Your task to perform on an android device: Check the settings for the Pandora app Image 0: 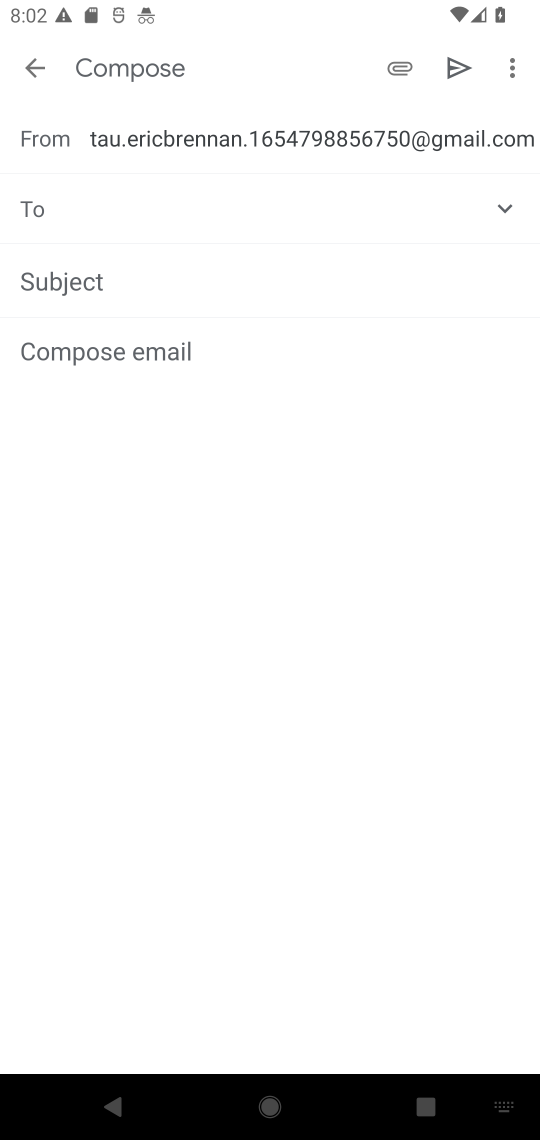
Step 0: press home button
Your task to perform on an android device: Check the settings for the Pandora app Image 1: 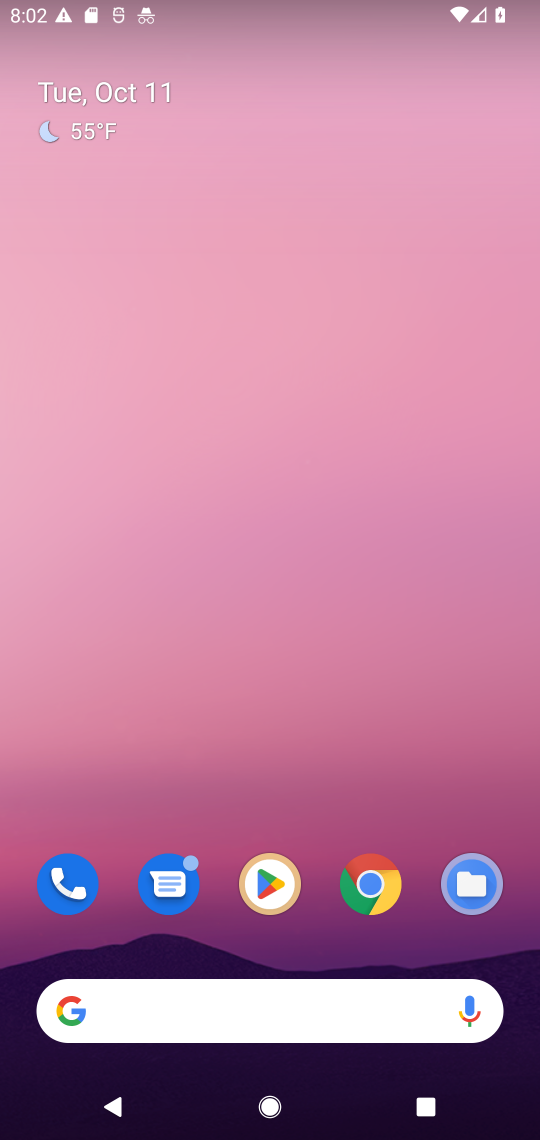
Step 1: drag from (316, 863) to (276, 76)
Your task to perform on an android device: Check the settings for the Pandora app Image 2: 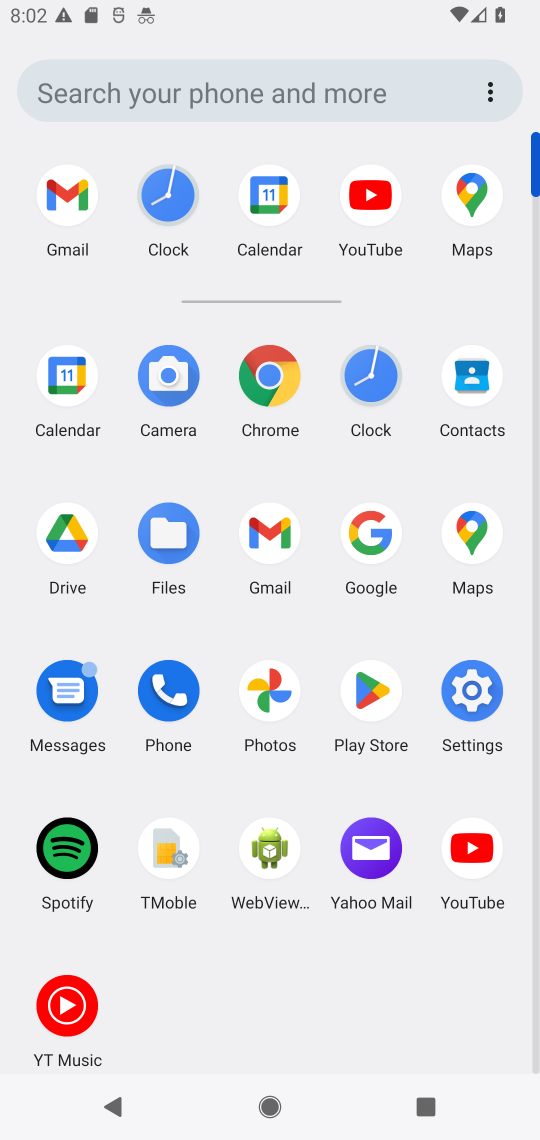
Step 2: drag from (334, 348) to (303, 1037)
Your task to perform on an android device: Check the settings for the Pandora app Image 3: 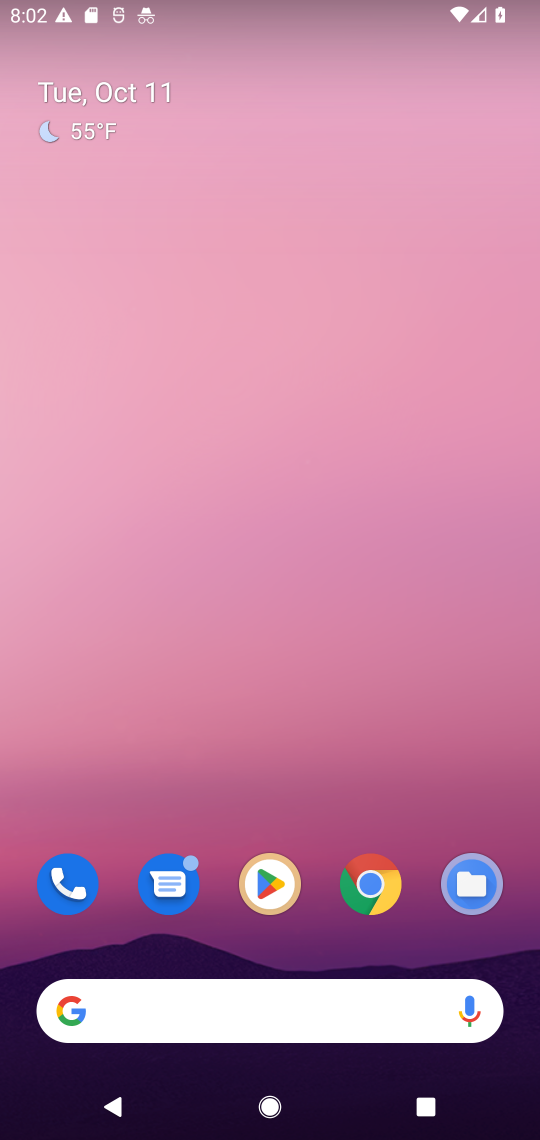
Step 3: drag from (307, 972) to (266, 181)
Your task to perform on an android device: Check the settings for the Pandora app Image 4: 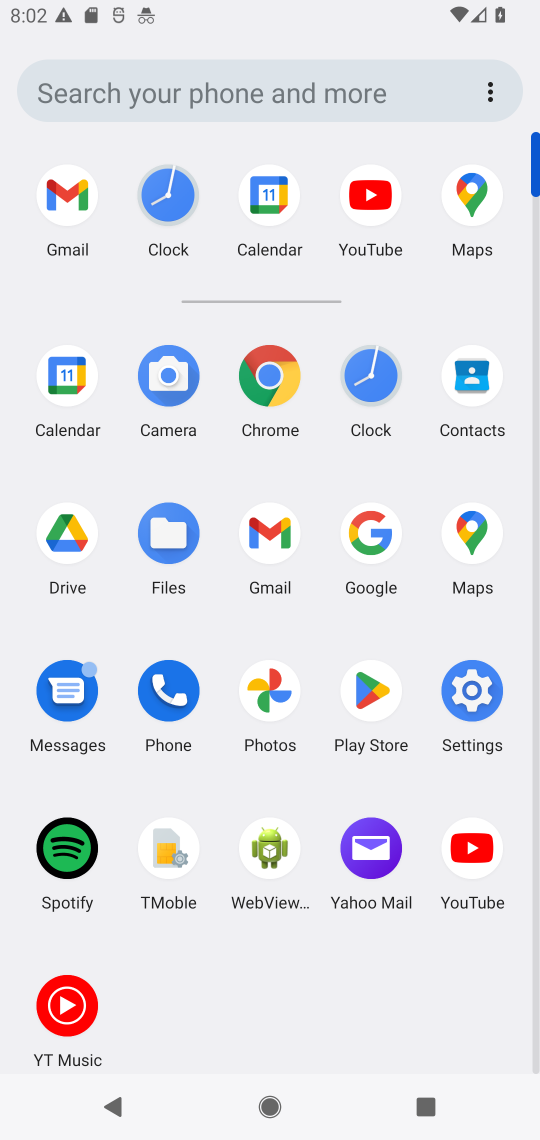
Step 4: drag from (303, 759) to (281, 149)
Your task to perform on an android device: Check the settings for the Pandora app Image 5: 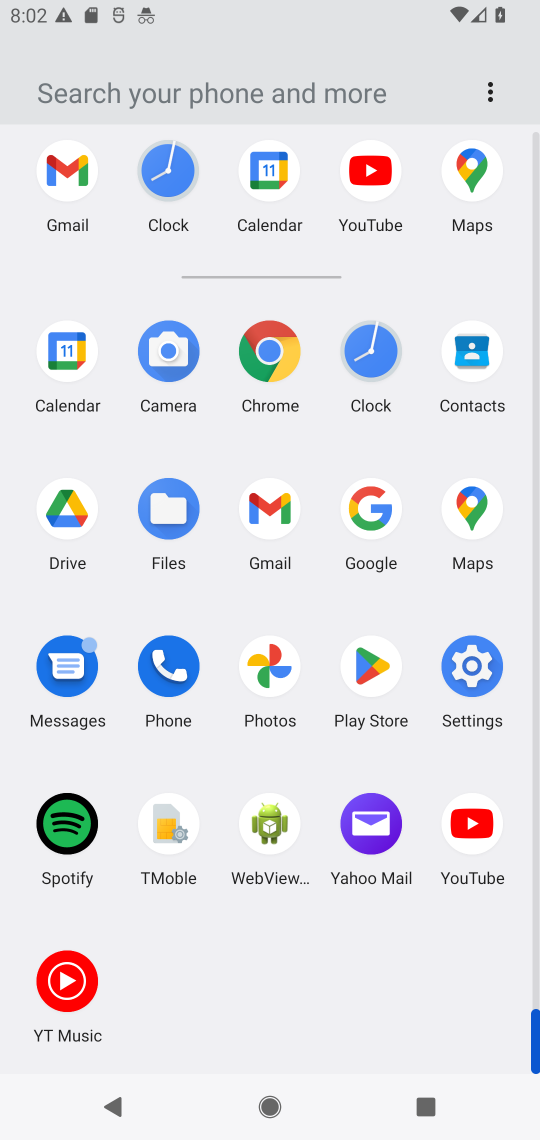
Step 5: click (376, 987)
Your task to perform on an android device: Check the settings for the Pandora app Image 6: 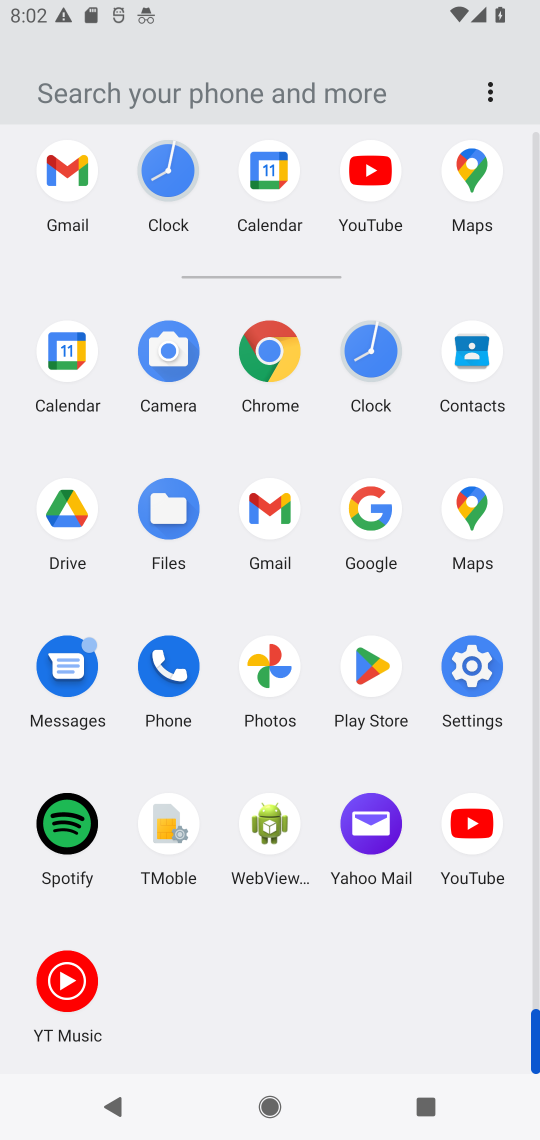
Step 6: task complete